Your task to perform on an android device: Do I have any events tomorrow? Image 0: 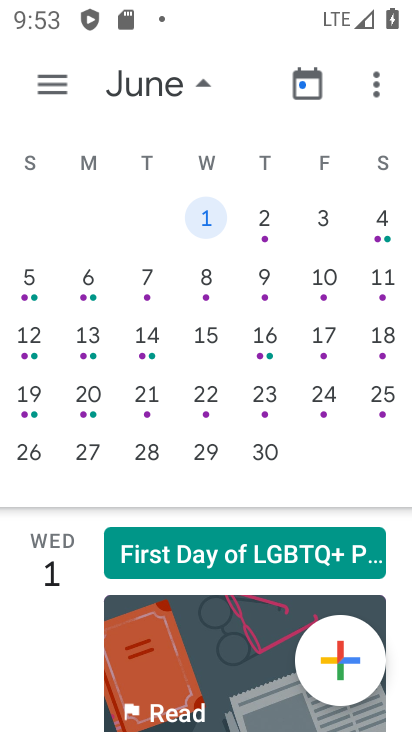
Step 0: click (45, 84)
Your task to perform on an android device: Do I have any events tomorrow? Image 1: 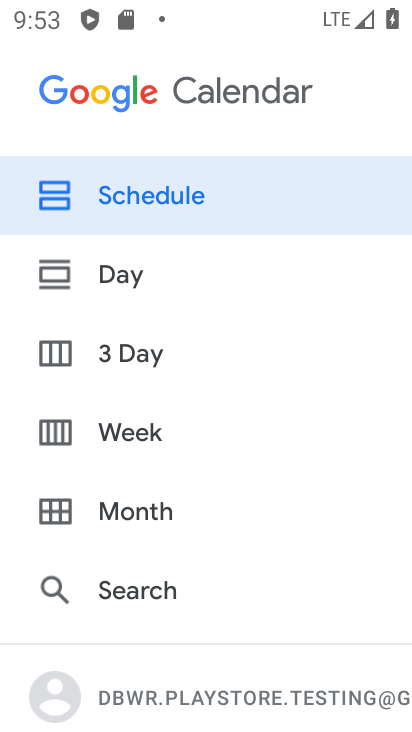
Step 1: click (131, 209)
Your task to perform on an android device: Do I have any events tomorrow? Image 2: 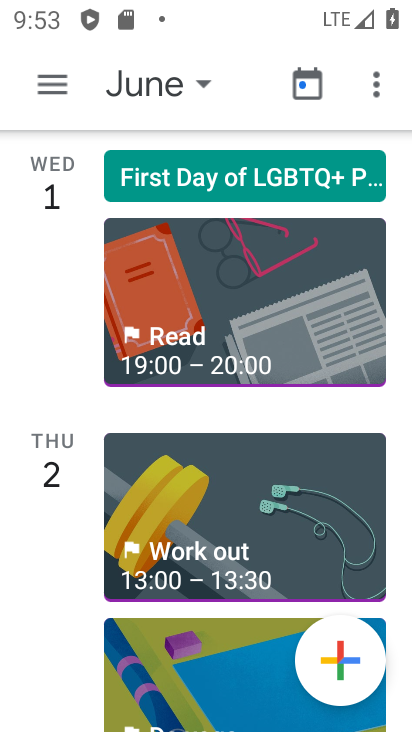
Step 2: click (201, 82)
Your task to perform on an android device: Do I have any events tomorrow? Image 3: 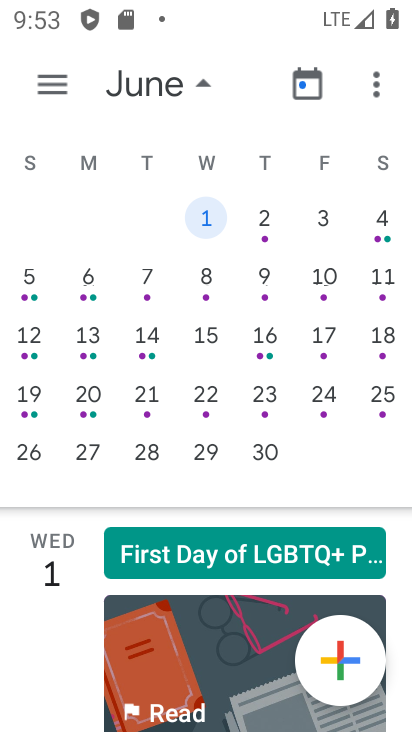
Step 3: task complete